Your task to perform on an android device: open wifi settings Image 0: 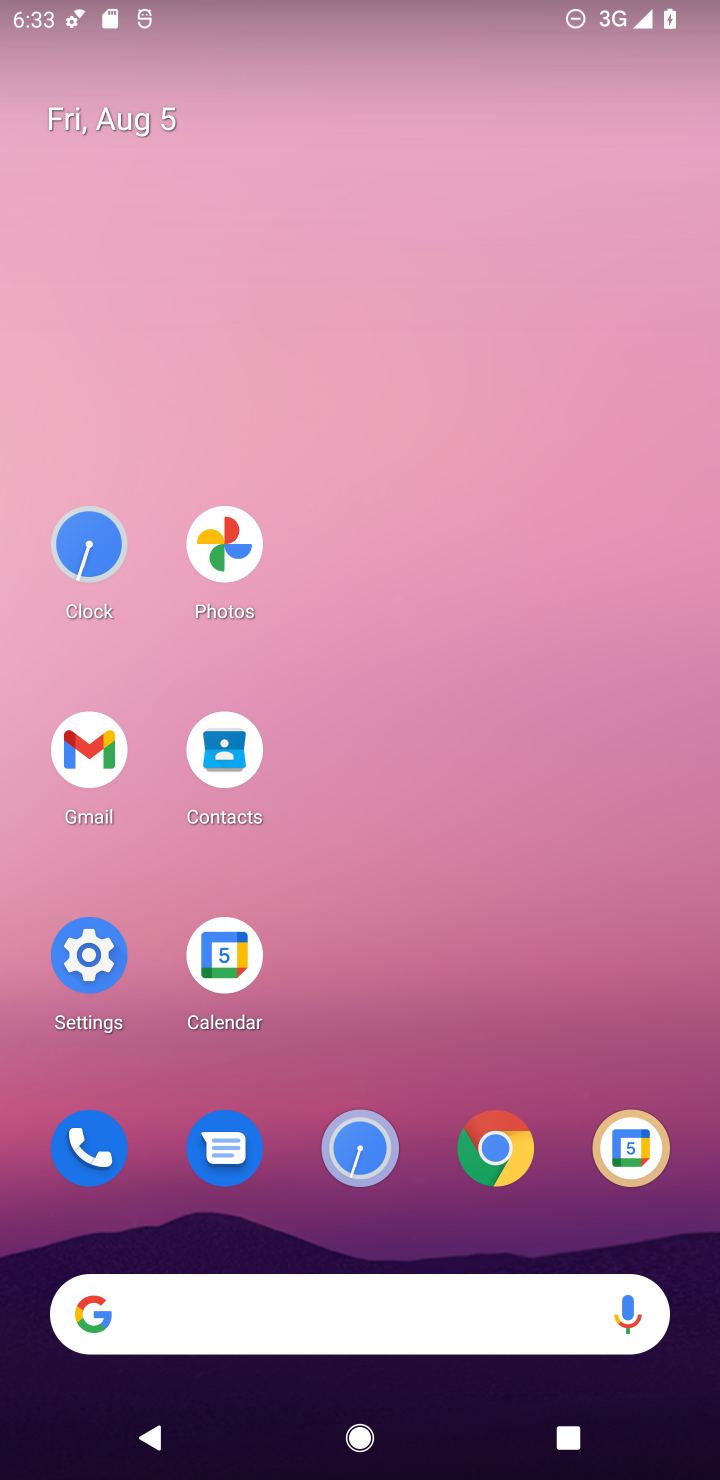
Step 0: click (78, 944)
Your task to perform on an android device: open wifi settings Image 1: 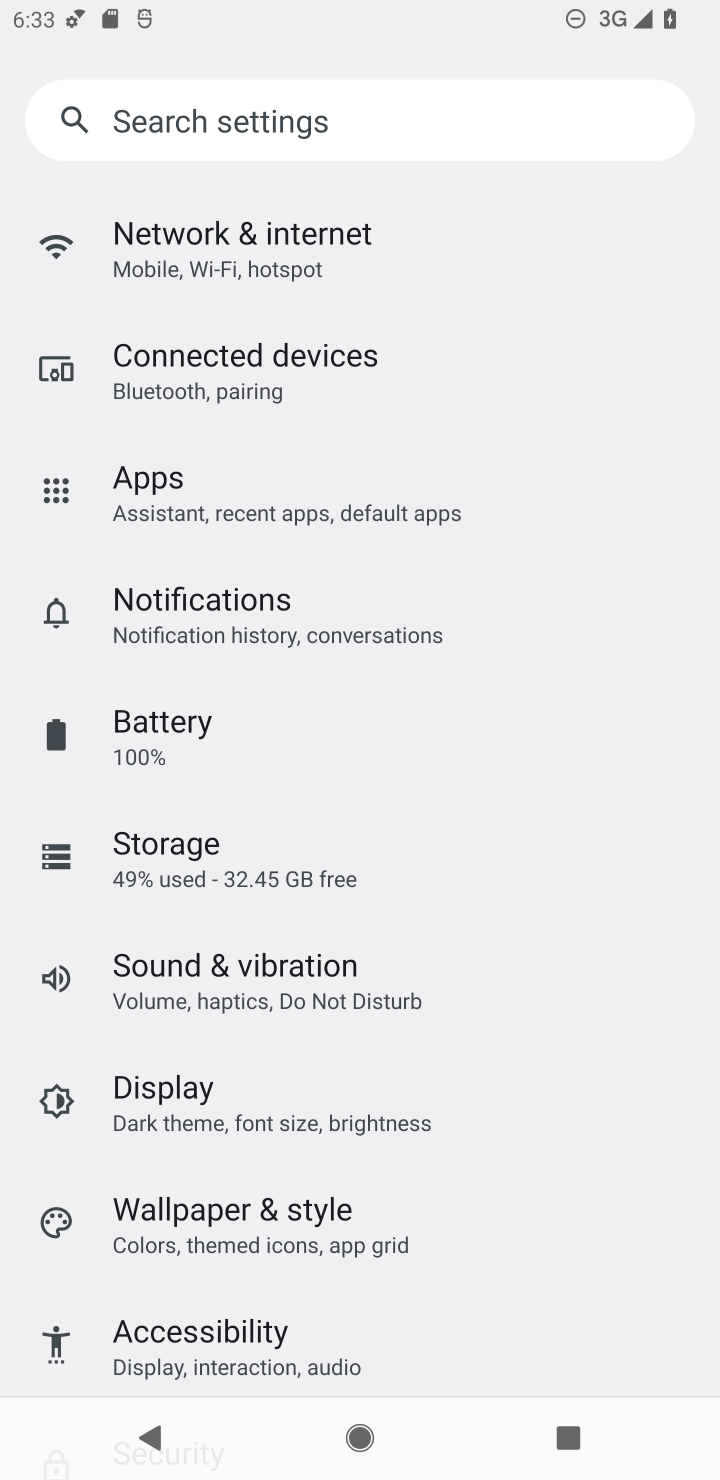
Step 1: click (277, 230)
Your task to perform on an android device: open wifi settings Image 2: 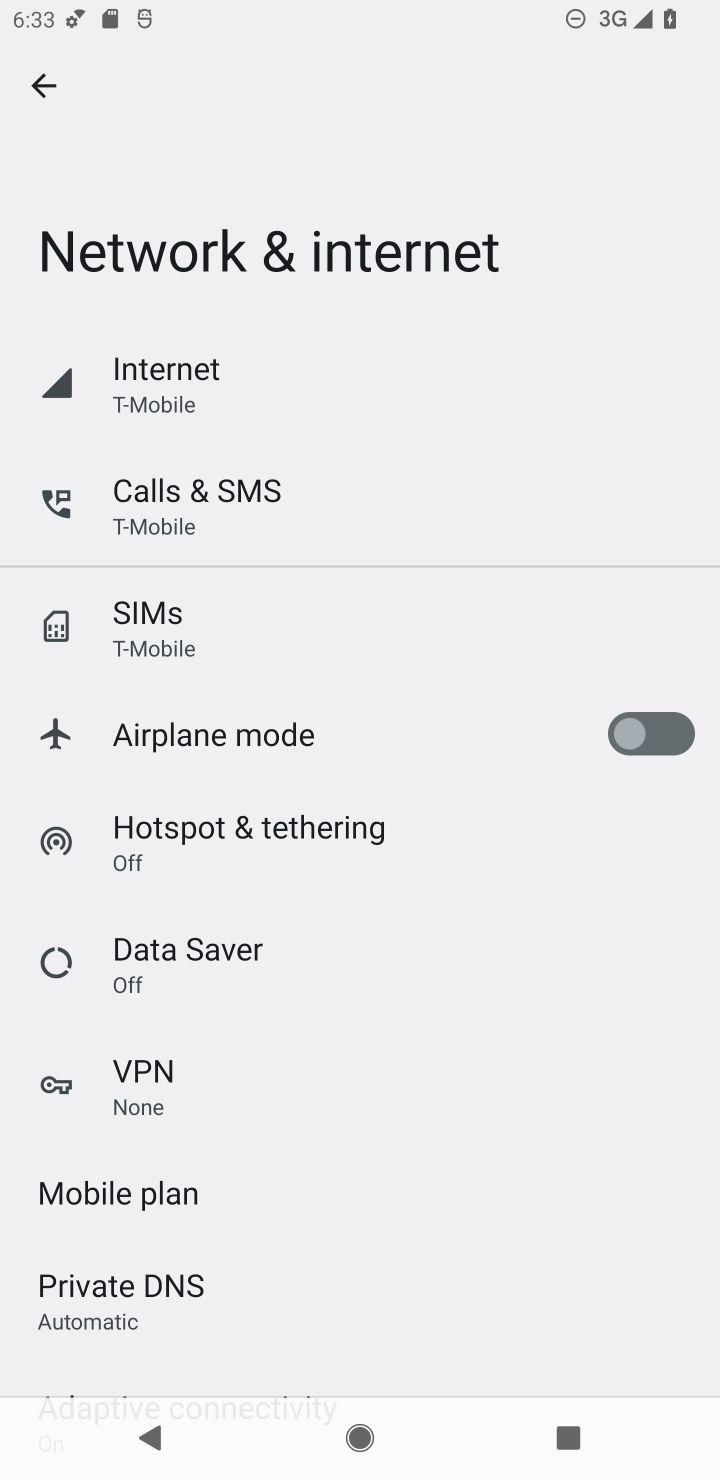
Step 2: click (179, 360)
Your task to perform on an android device: open wifi settings Image 3: 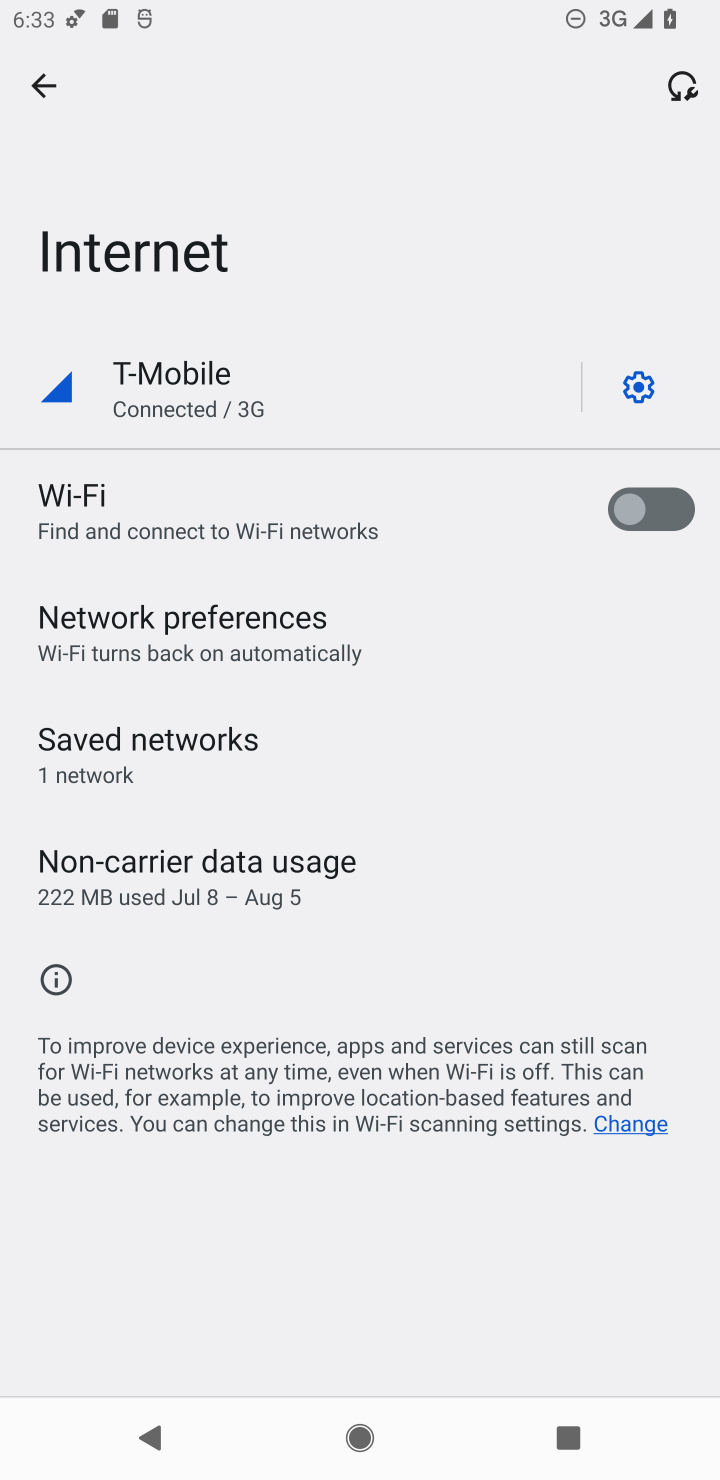
Step 3: click (57, 496)
Your task to perform on an android device: open wifi settings Image 4: 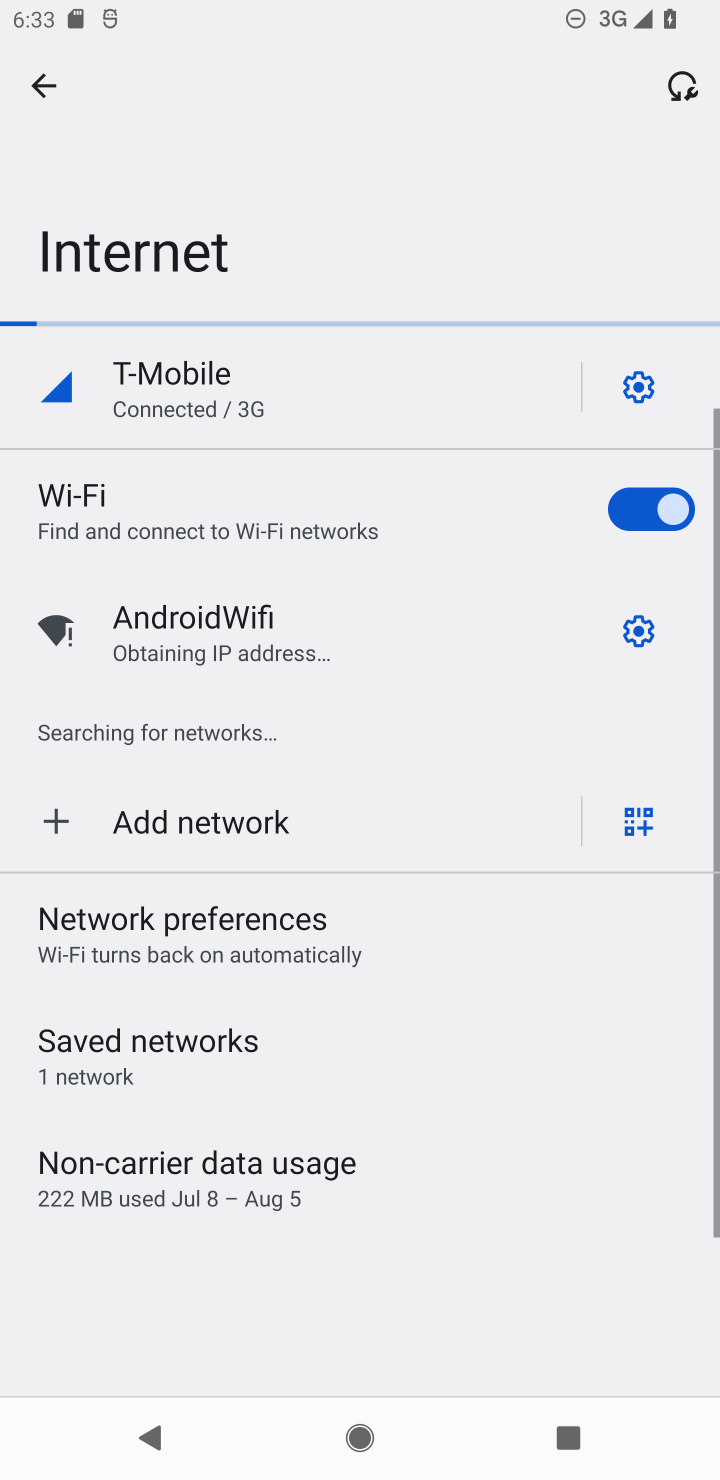
Step 4: task complete